Your task to perform on an android device: Set the phone to "Do not disturb". Image 0: 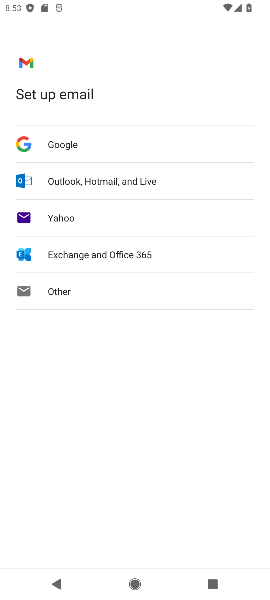
Step 0: press home button
Your task to perform on an android device: Set the phone to "Do not disturb". Image 1: 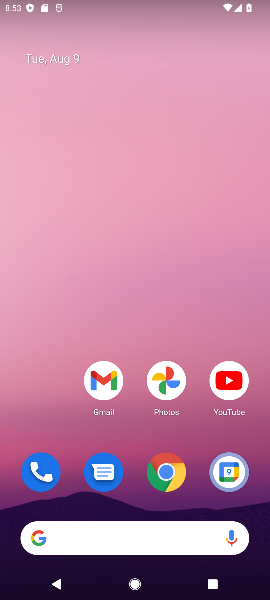
Step 1: drag from (124, 536) to (169, 5)
Your task to perform on an android device: Set the phone to "Do not disturb". Image 2: 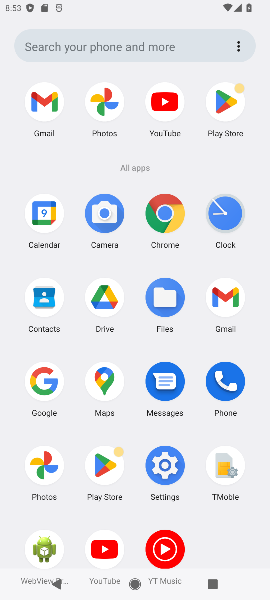
Step 2: click (177, 465)
Your task to perform on an android device: Set the phone to "Do not disturb". Image 3: 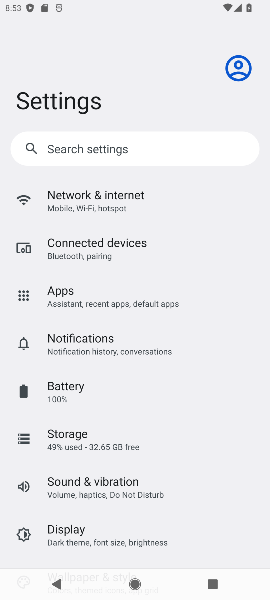
Step 3: click (129, 489)
Your task to perform on an android device: Set the phone to "Do not disturb". Image 4: 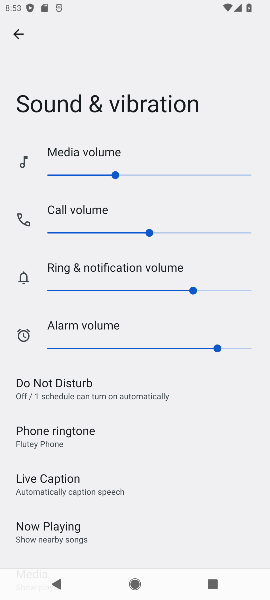
Step 4: click (98, 403)
Your task to perform on an android device: Set the phone to "Do not disturb". Image 5: 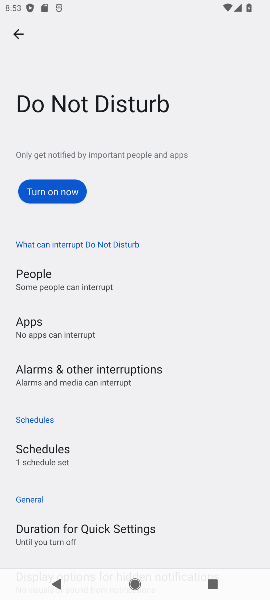
Step 5: click (58, 194)
Your task to perform on an android device: Set the phone to "Do not disturb". Image 6: 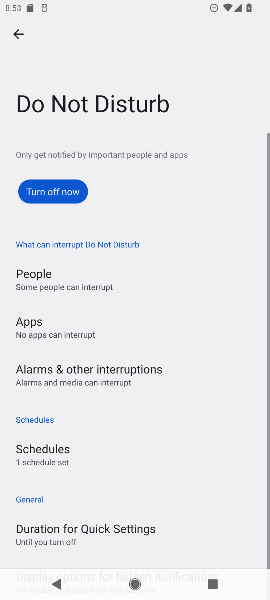
Step 6: task complete